Your task to perform on an android device: show emergency info Image 0: 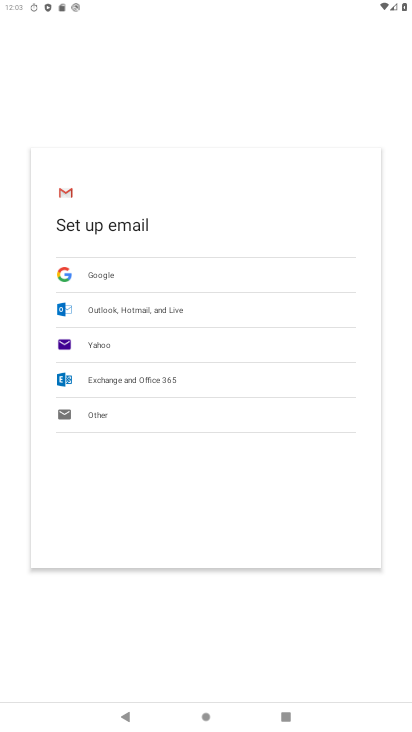
Step 0: press home button
Your task to perform on an android device: show emergency info Image 1: 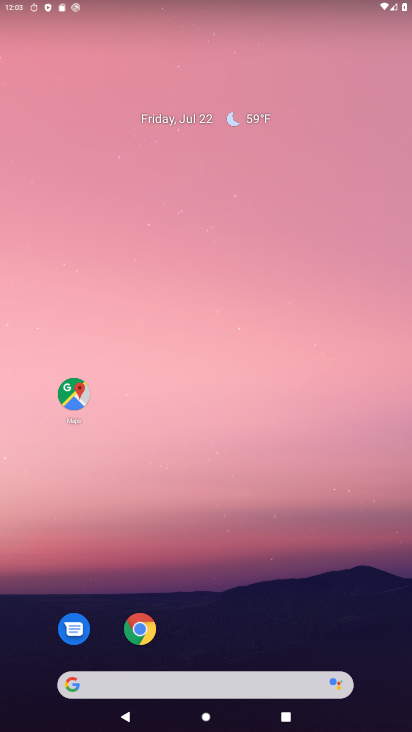
Step 1: drag from (213, 693) to (333, 9)
Your task to perform on an android device: show emergency info Image 2: 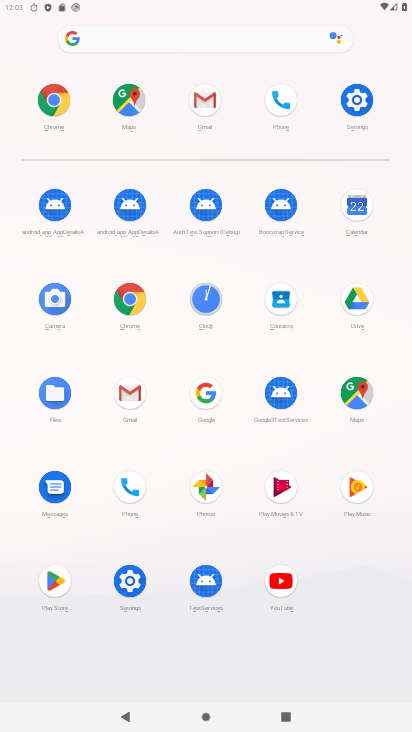
Step 2: click (365, 95)
Your task to perform on an android device: show emergency info Image 3: 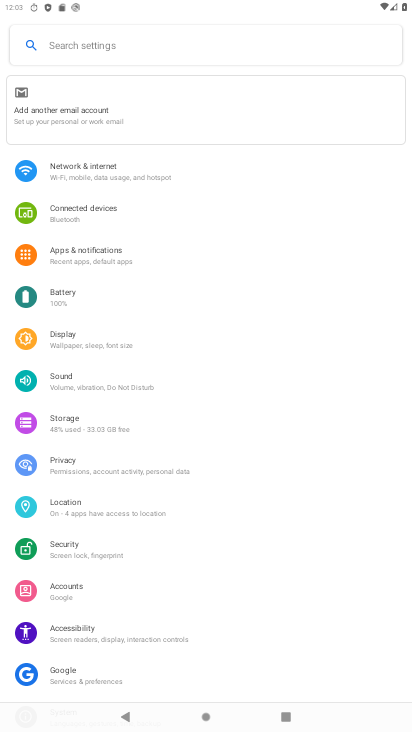
Step 3: drag from (133, 673) to (199, 324)
Your task to perform on an android device: show emergency info Image 4: 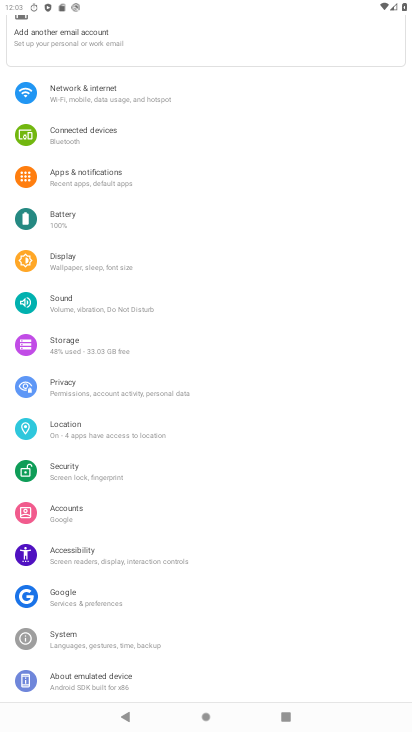
Step 4: click (149, 683)
Your task to perform on an android device: show emergency info Image 5: 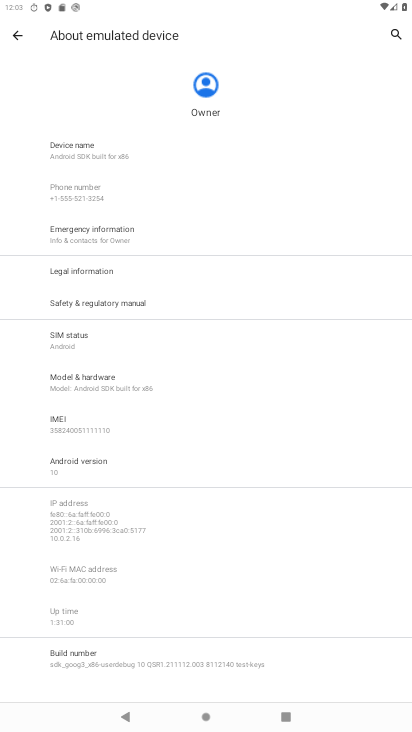
Step 5: click (80, 249)
Your task to perform on an android device: show emergency info Image 6: 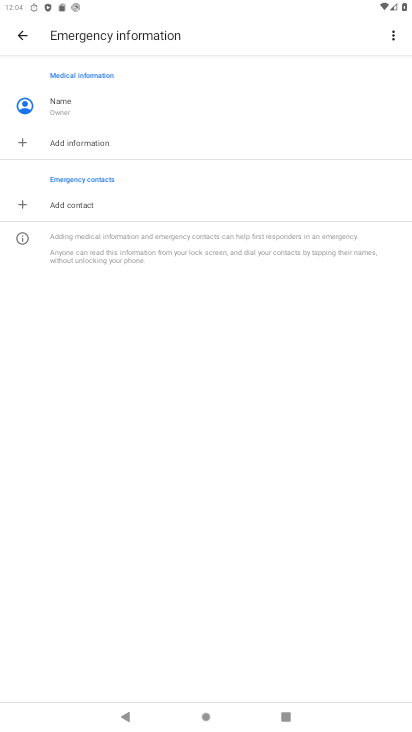
Step 6: task complete